Your task to perform on an android device: open a bookmark in the chrome app Image 0: 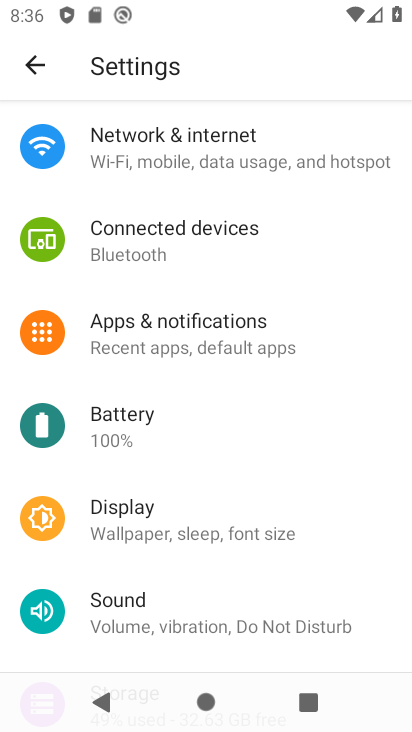
Step 0: press home button
Your task to perform on an android device: open a bookmark in the chrome app Image 1: 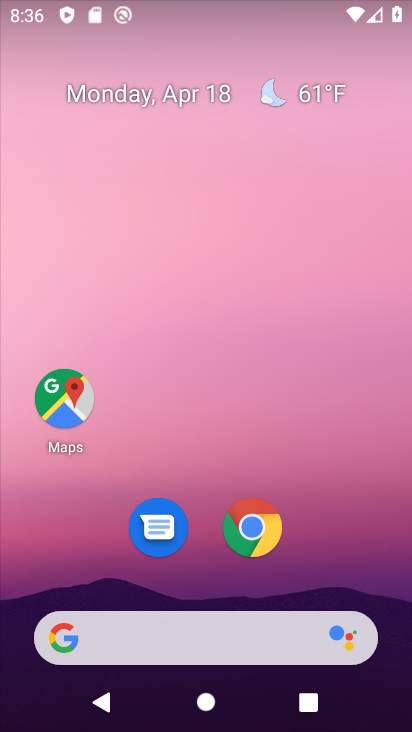
Step 1: click (256, 528)
Your task to perform on an android device: open a bookmark in the chrome app Image 2: 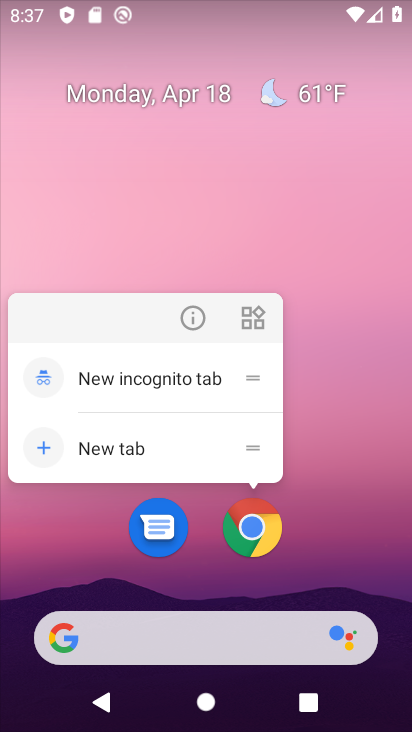
Step 2: click (255, 528)
Your task to perform on an android device: open a bookmark in the chrome app Image 3: 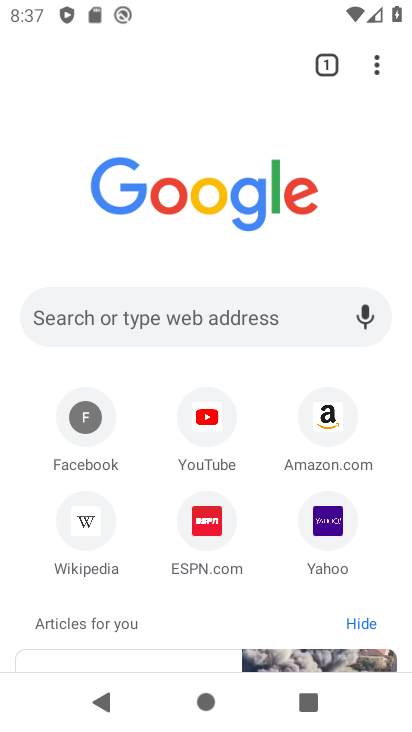
Step 3: click (373, 69)
Your task to perform on an android device: open a bookmark in the chrome app Image 4: 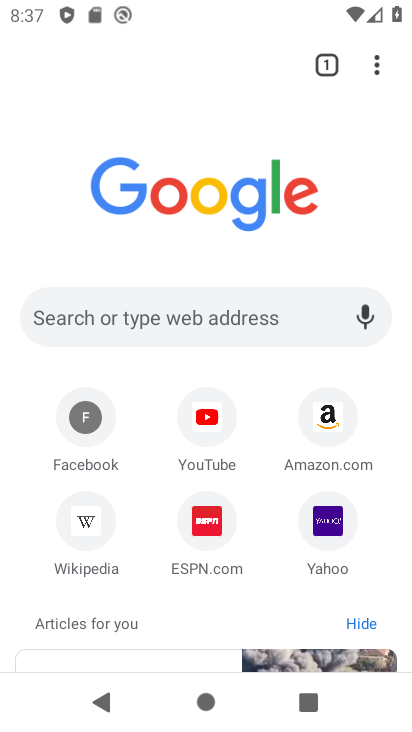
Step 4: click (376, 65)
Your task to perform on an android device: open a bookmark in the chrome app Image 5: 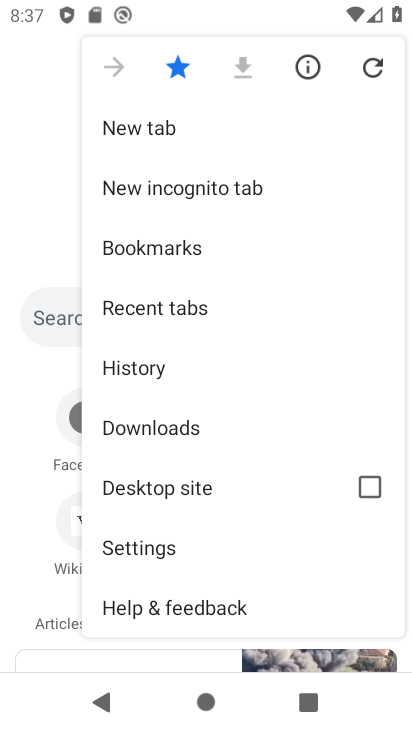
Step 5: click (161, 256)
Your task to perform on an android device: open a bookmark in the chrome app Image 6: 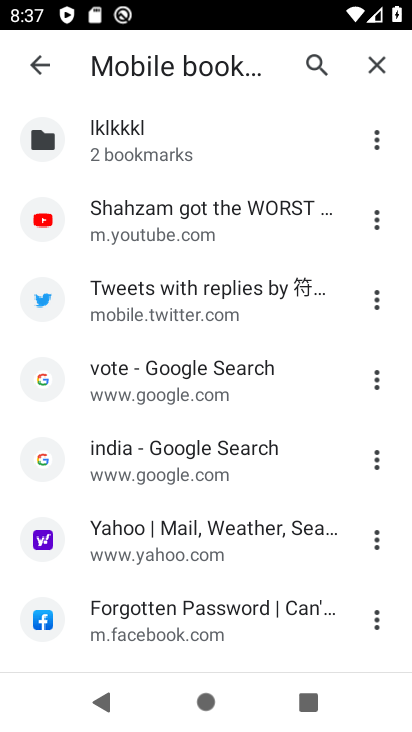
Step 6: click (163, 391)
Your task to perform on an android device: open a bookmark in the chrome app Image 7: 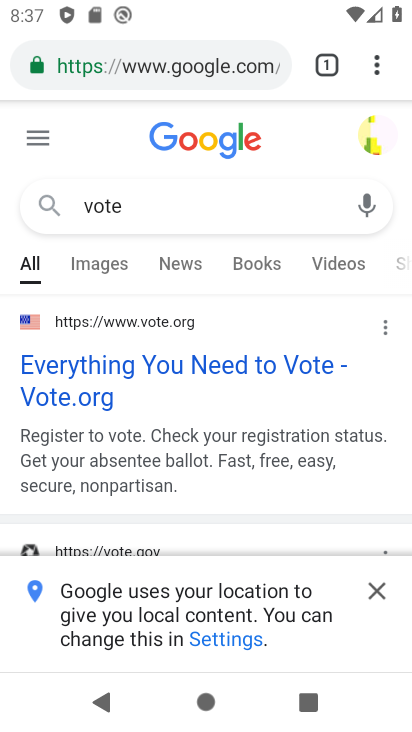
Step 7: task complete